Your task to perform on an android device: change the clock style Image 0: 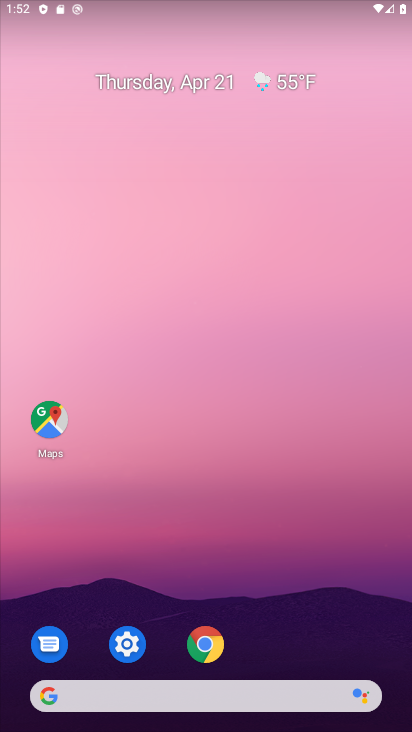
Step 0: drag from (294, 372) to (244, 145)
Your task to perform on an android device: change the clock style Image 1: 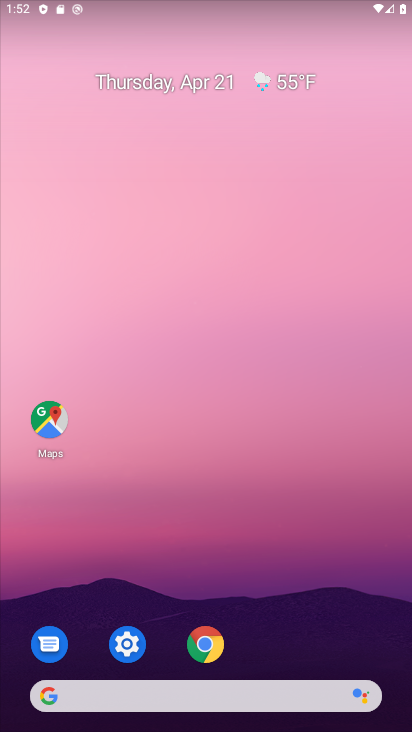
Step 1: drag from (262, 622) to (85, 14)
Your task to perform on an android device: change the clock style Image 2: 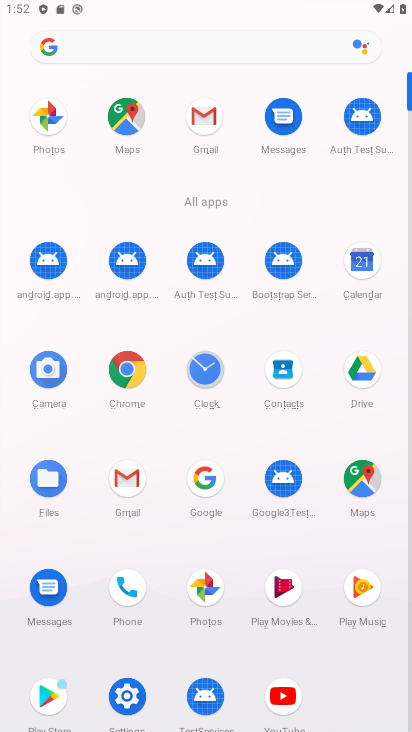
Step 2: click (208, 364)
Your task to perform on an android device: change the clock style Image 3: 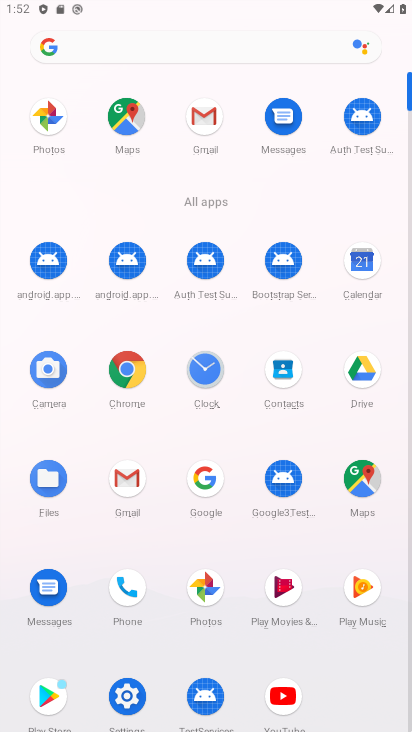
Step 3: click (208, 364)
Your task to perform on an android device: change the clock style Image 4: 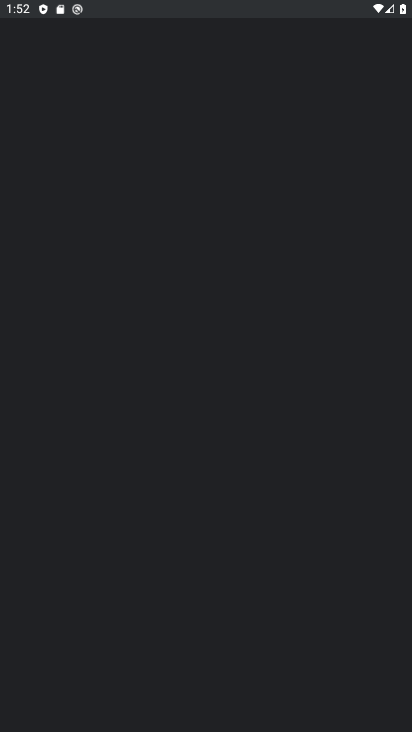
Step 4: click (208, 364)
Your task to perform on an android device: change the clock style Image 5: 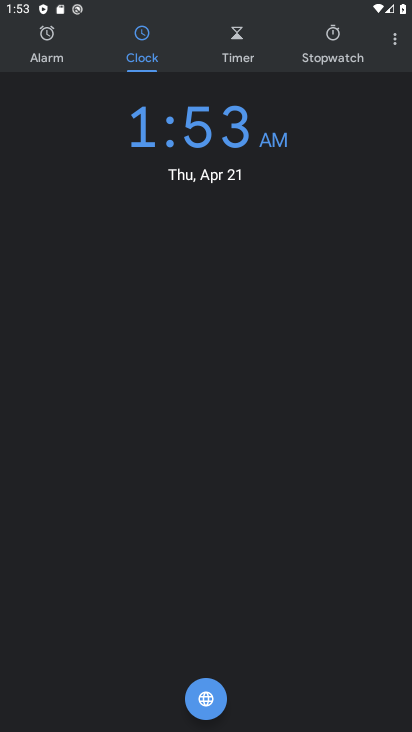
Step 5: click (384, 41)
Your task to perform on an android device: change the clock style Image 6: 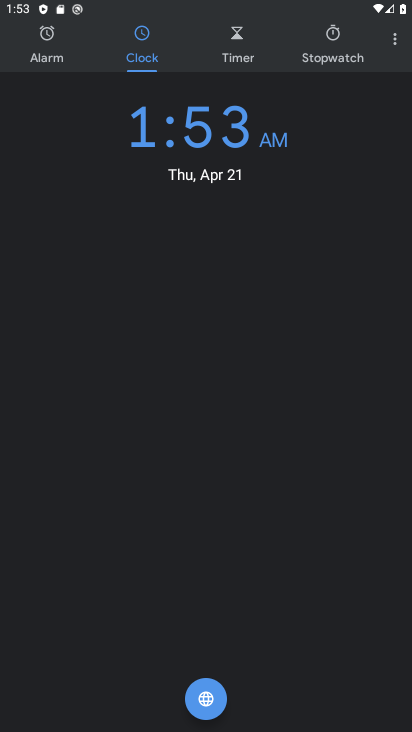
Step 6: drag from (397, 39) to (322, 462)
Your task to perform on an android device: change the clock style Image 7: 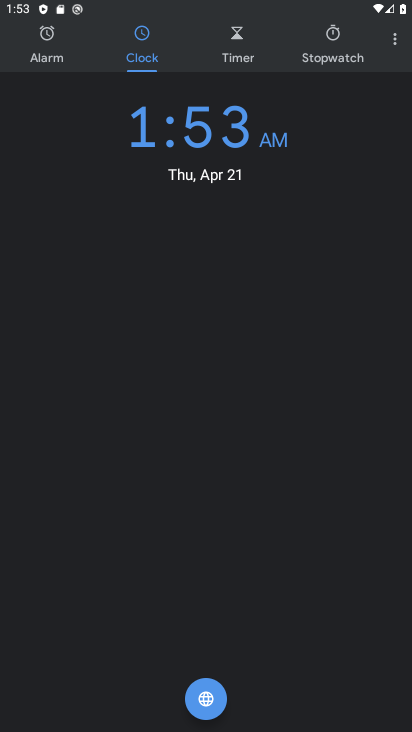
Step 7: drag from (390, 38) to (296, 391)
Your task to perform on an android device: change the clock style Image 8: 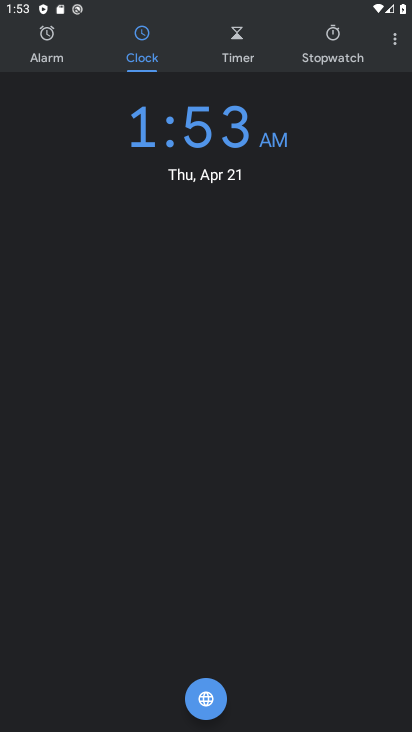
Step 8: click (297, 71)
Your task to perform on an android device: change the clock style Image 9: 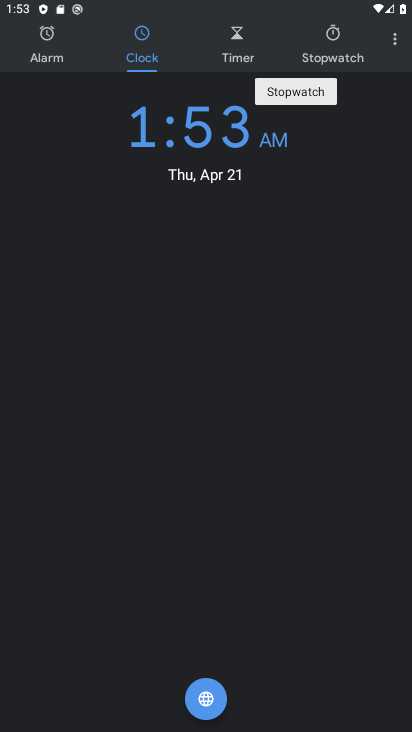
Step 9: click (392, 42)
Your task to perform on an android device: change the clock style Image 10: 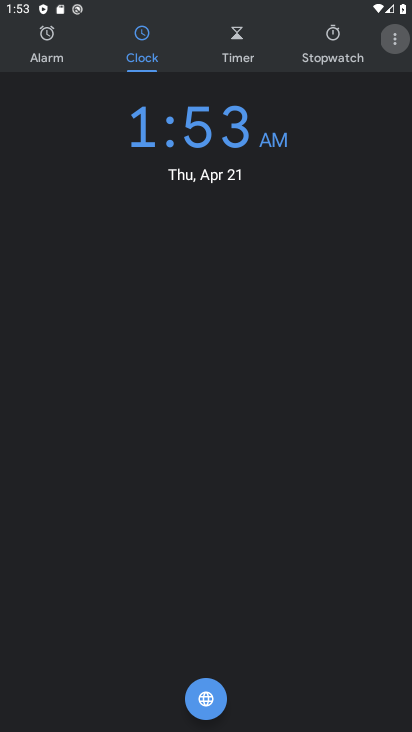
Step 10: click (402, 62)
Your task to perform on an android device: change the clock style Image 11: 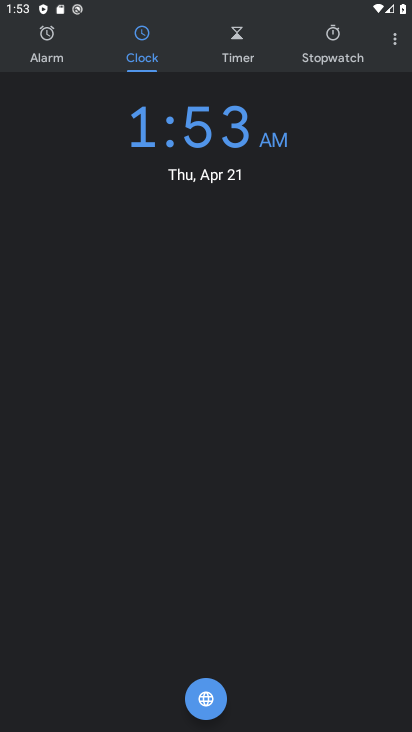
Step 11: click (391, 48)
Your task to perform on an android device: change the clock style Image 12: 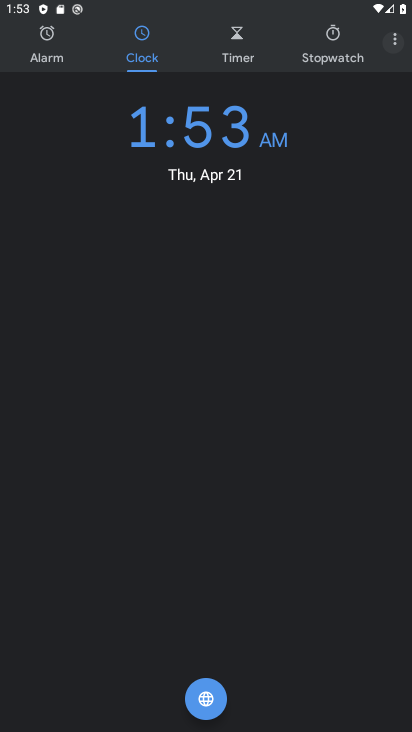
Step 12: click (392, 47)
Your task to perform on an android device: change the clock style Image 13: 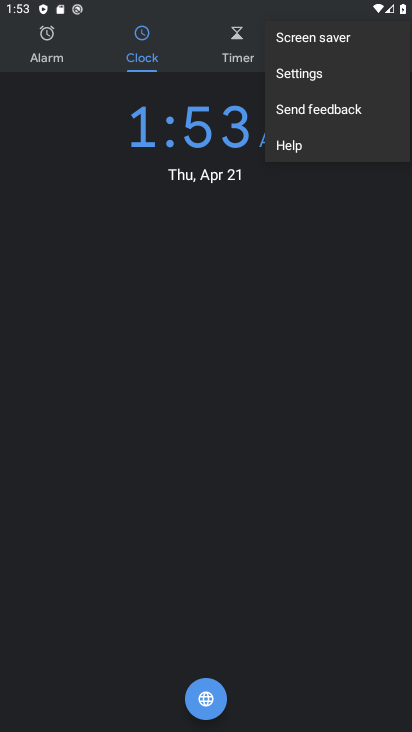
Step 13: click (395, 46)
Your task to perform on an android device: change the clock style Image 14: 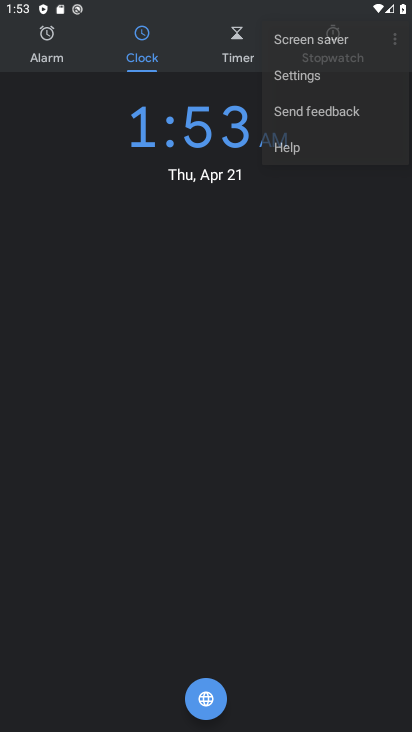
Step 14: click (395, 46)
Your task to perform on an android device: change the clock style Image 15: 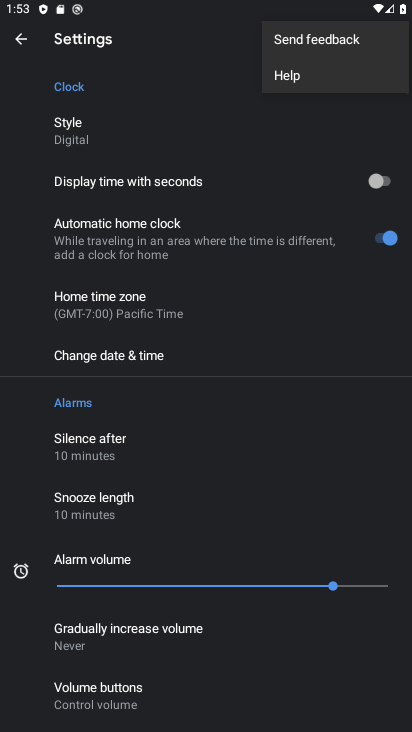
Step 15: click (109, 137)
Your task to perform on an android device: change the clock style Image 16: 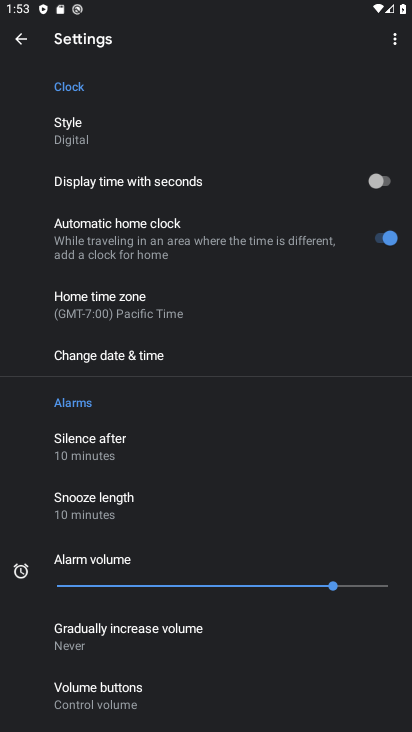
Step 16: click (109, 137)
Your task to perform on an android device: change the clock style Image 17: 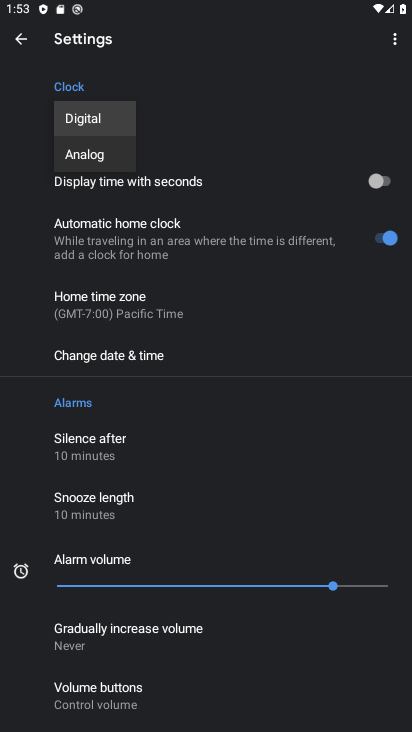
Step 17: click (73, 132)
Your task to perform on an android device: change the clock style Image 18: 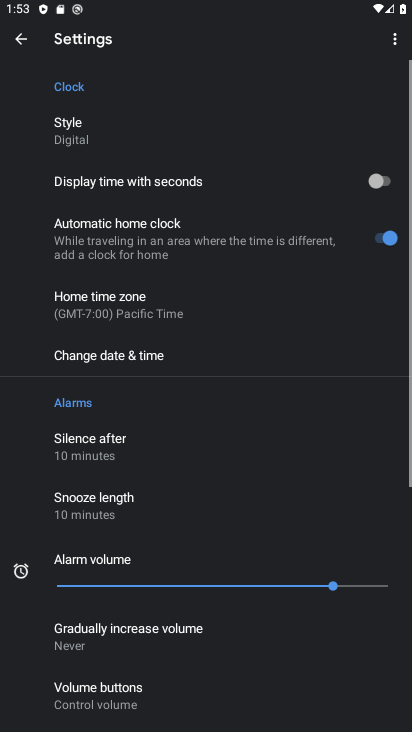
Step 18: click (96, 154)
Your task to perform on an android device: change the clock style Image 19: 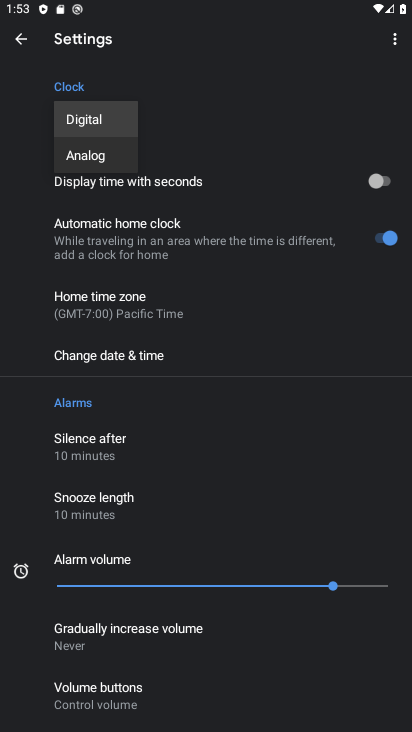
Step 19: click (101, 152)
Your task to perform on an android device: change the clock style Image 20: 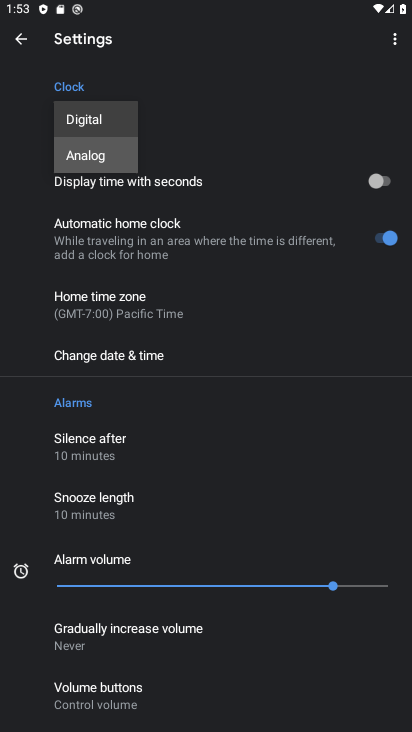
Step 20: click (101, 153)
Your task to perform on an android device: change the clock style Image 21: 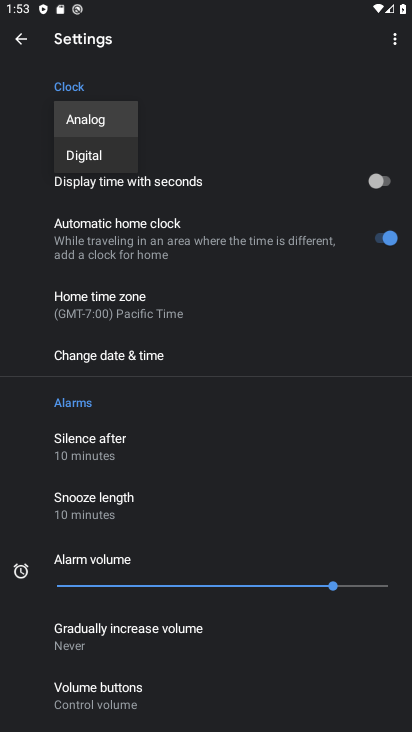
Step 21: task complete